Your task to perform on an android device: add a contact in the contacts app Image 0: 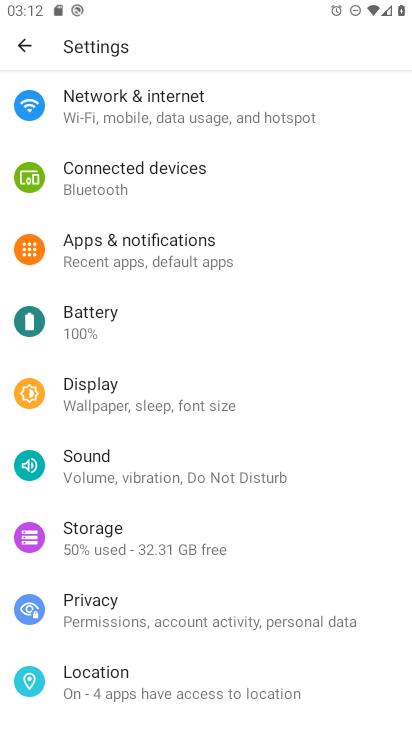
Step 0: press home button
Your task to perform on an android device: add a contact in the contacts app Image 1: 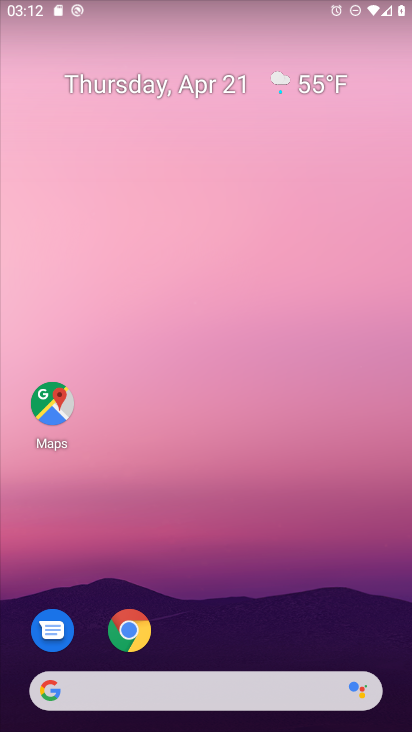
Step 1: drag from (283, 563) to (206, 22)
Your task to perform on an android device: add a contact in the contacts app Image 2: 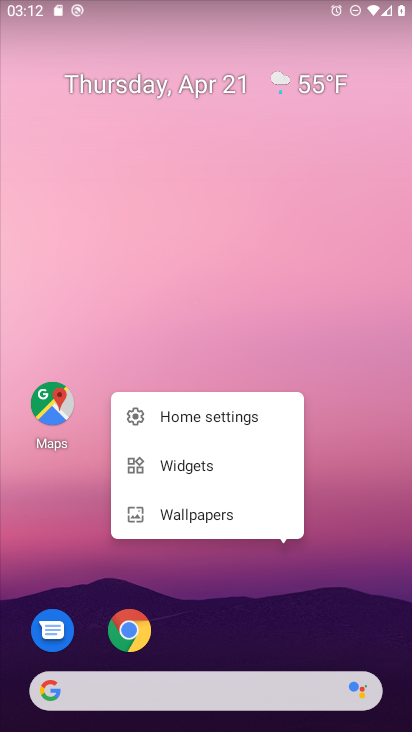
Step 2: drag from (355, 618) to (341, 190)
Your task to perform on an android device: add a contact in the contacts app Image 3: 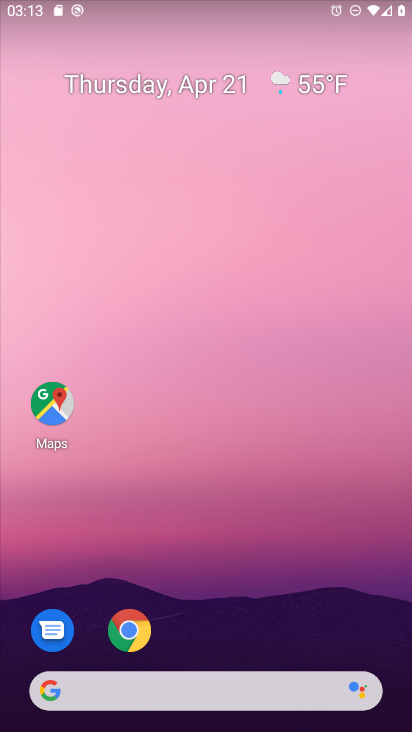
Step 3: drag from (254, 582) to (310, 26)
Your task to perform on an android device: add a contact in the contacts app Image 4: 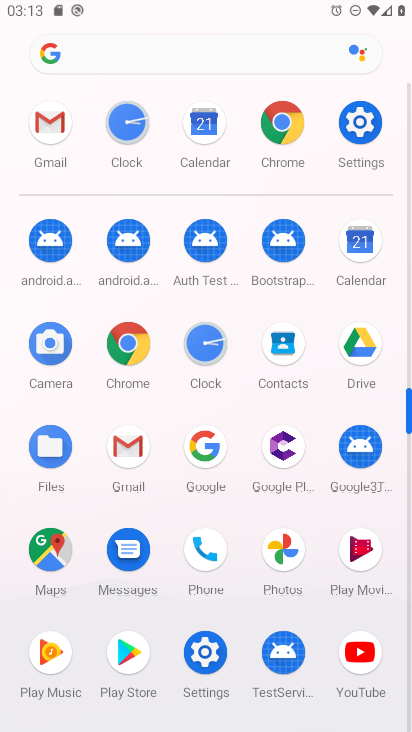
Step 4: click (292, 363)
Your task to perform on an android device: add a contact in the contacts app Image 5: 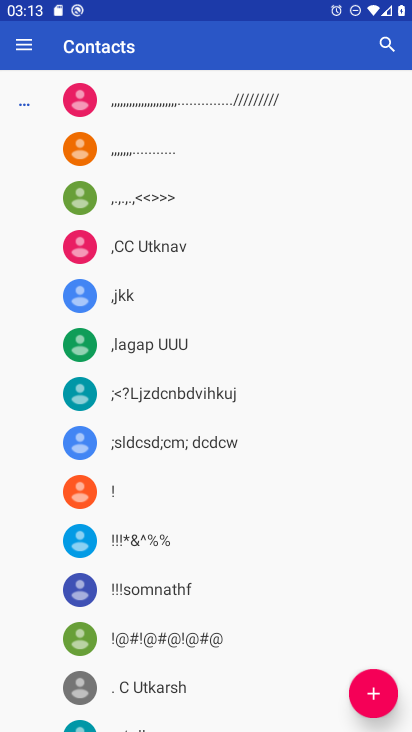
Step 5: click (366, 706)
Your task to perform on an android device: add a contact in the contacts app Image 6: 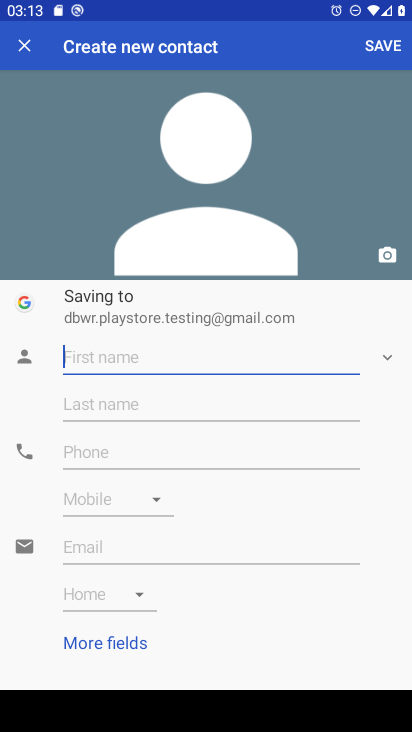
Step 6: type "dscds"
Your task to perform on an android device: add a contact in the contacts app Image 7: 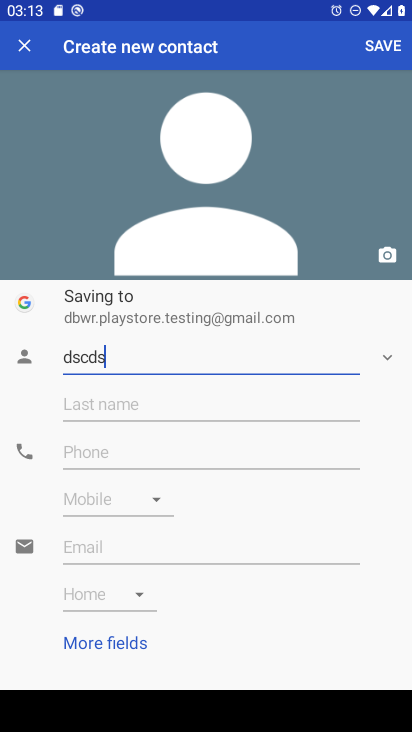
Step 7: click (230, 400)
Your task to perform on an android device: add a contact in the contacts app Image 8: 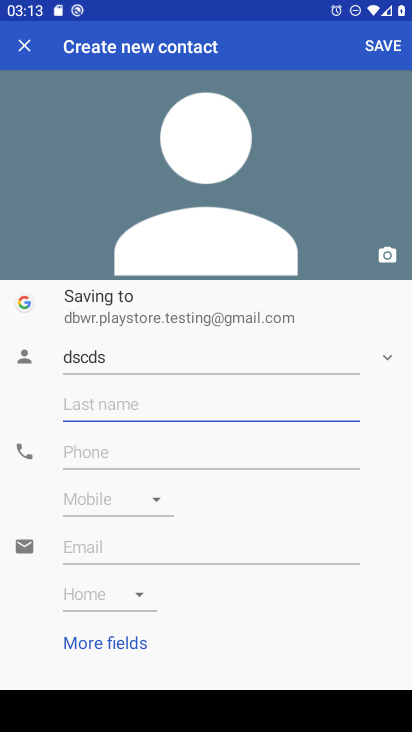
Step 8: type "sdcd"
Your task to perform on an android device: add a contact in the contacts app Image 9: 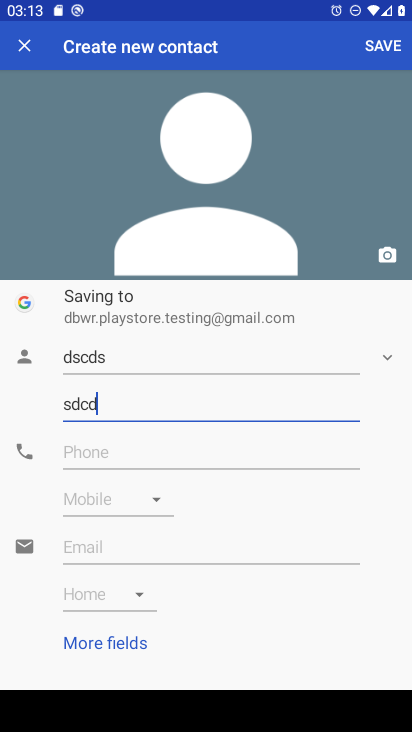
Step 9: click (215, 457)
Your task to perform on an android device: add a contact in the contacts app Image 10: 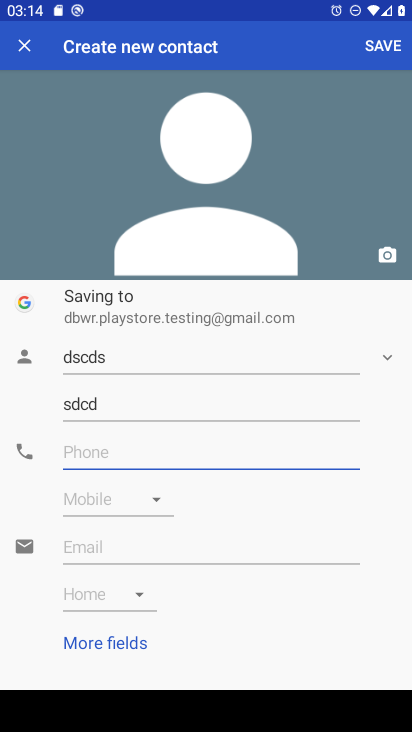
Step 10: type "4234532523"
Your task to perform on an android device: add a contact in the contacts app Image 11: 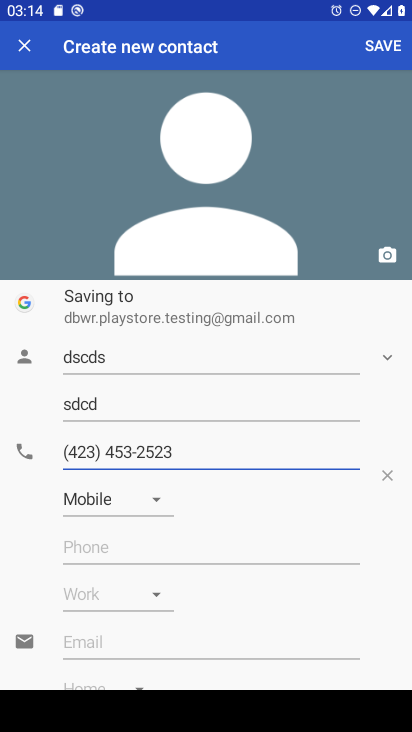
Step 11: click (375, 48)
Your task to perform on an android device: add a contact in the contacts app Image 12: 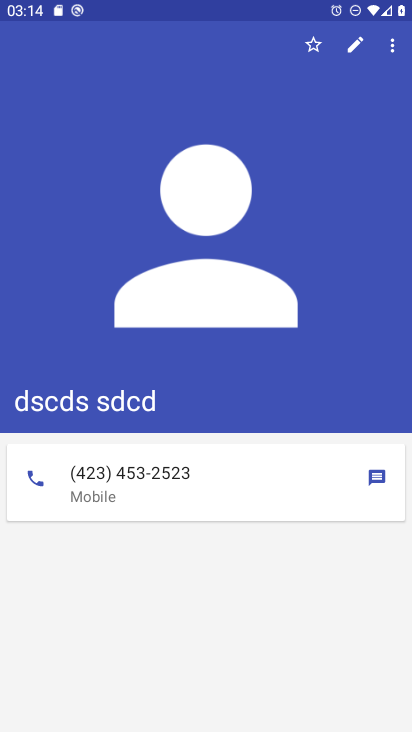
Step 12: task complete